Your task to perform on an android device: Open Google Chrome and open the bookmarks view Image 0: 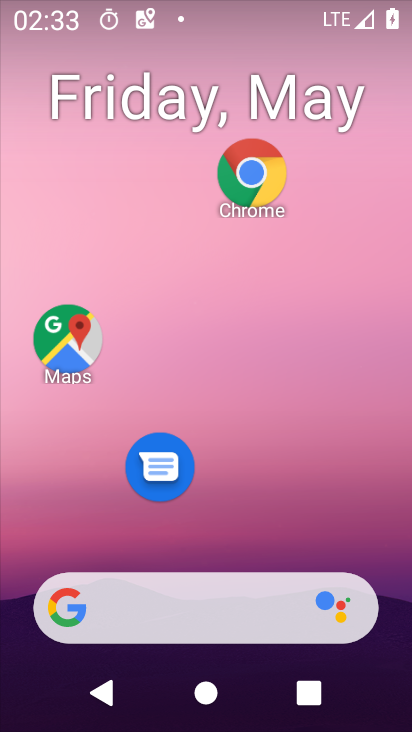
Step 0: press home button
Your task to perform on an android device: Open Google Chrome and open the bookmarks view Image 1: 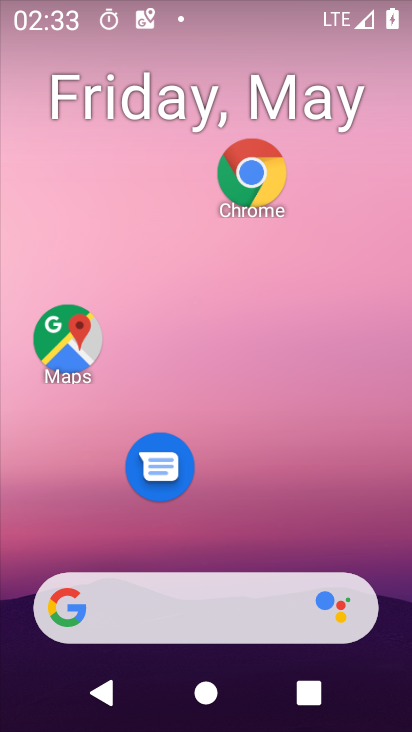
Step 1: drag from (267, 645) to (304, 178)
Your task to perform on an android device: Open Google Chrome and open the bookmarks view Image 2: 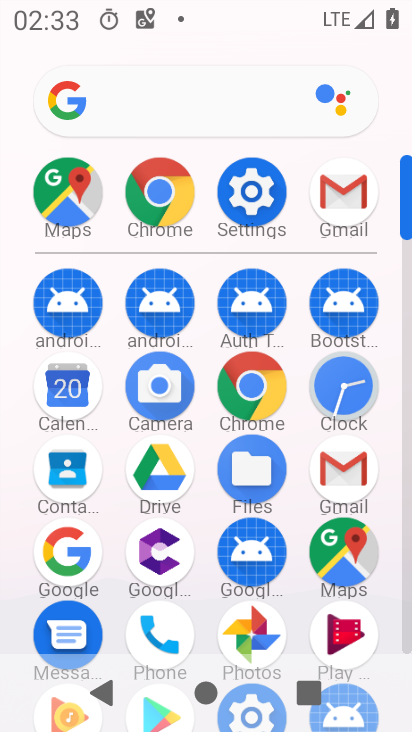
Step 2: click (150, 196)
Your task to perform on an android device: Open Google Chrome and open the bookmarks view Image 3: 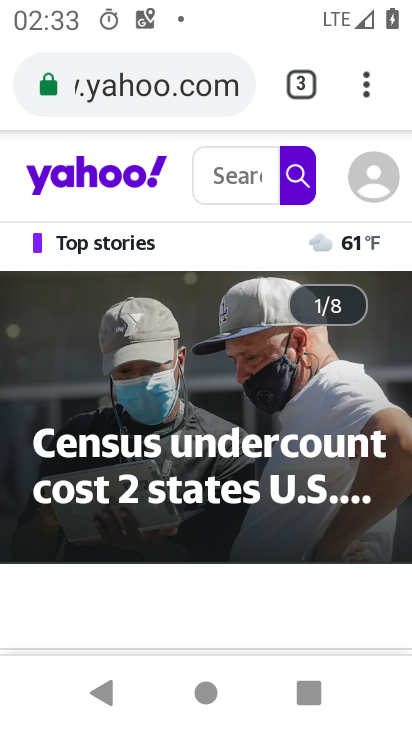
Step 3: click (360, 89)
Your task to perform on an android device: Open Google Chrome and open the bookmarks view Image 4: 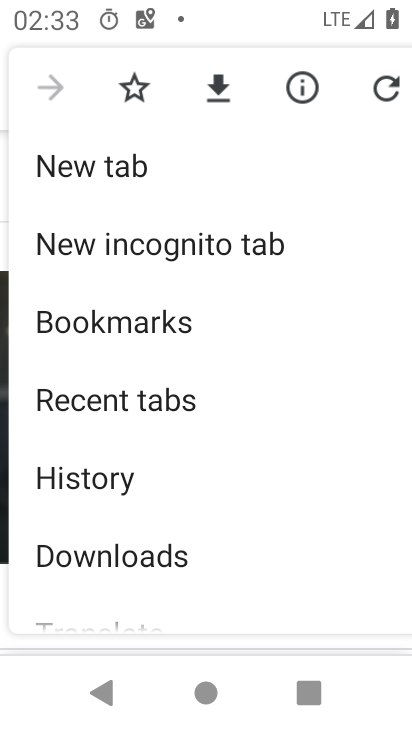
Step 4: click (146, 318)
Your task to perform on an android device: Open Google Chrome and open the bookmarks view Image 5: 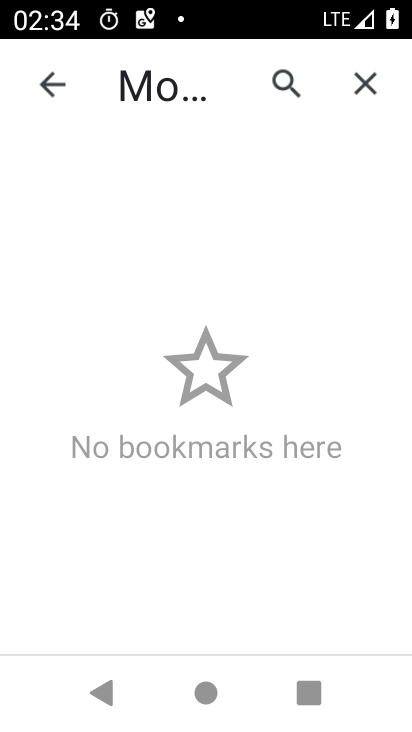
Step 5: task complete